Your task to perform on an android device: turn on wifi Image 0: 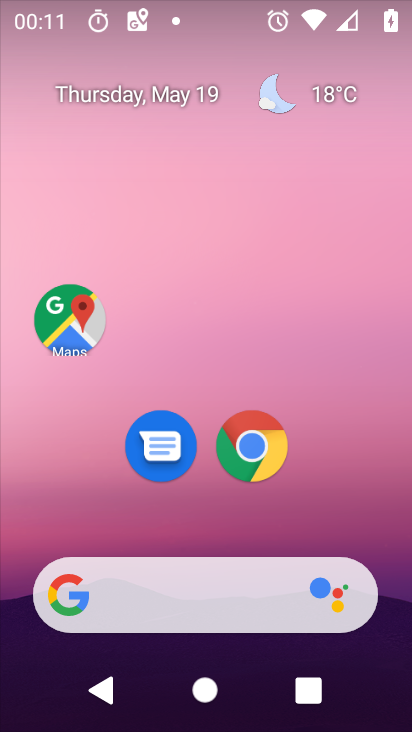
Step 0: press home button
Your task to perform on an android device: turn on wifi Image 1: 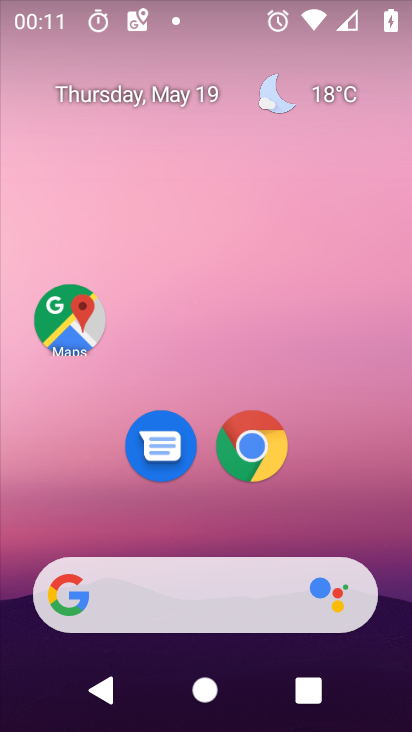
Step 1: drag from (166, 613) to (319, 127)
Your task to perform on an android device: turn on wifi Image 2: 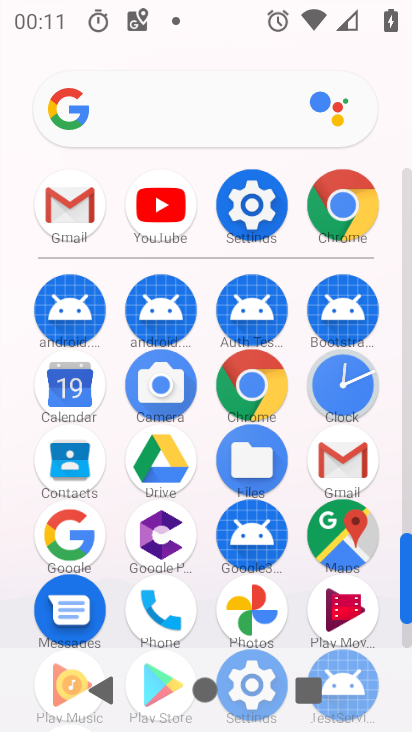
Step 2: click (265, 203)
Your task to perform on an android device: turn on wifi Image 3: 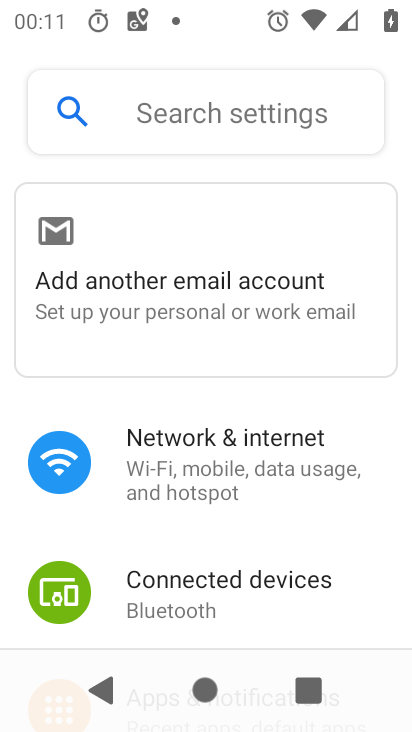
Step 3: click (245, 449)
Your task to perform on an android device: turn on wifi Image 4: 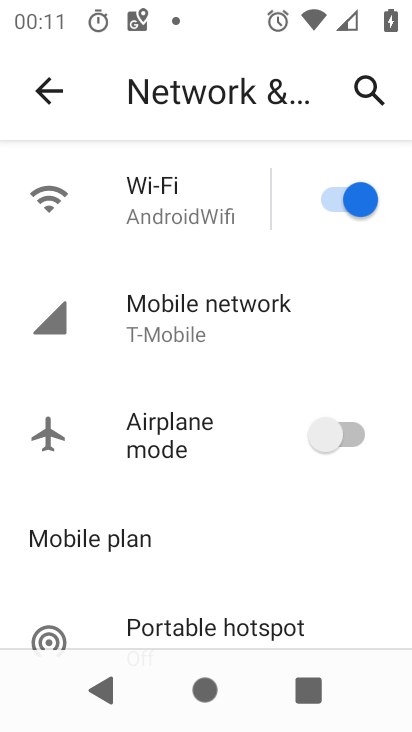
Step 4: task complete